Your task to perform on an android device: Open settings on Google Maps Image 0: 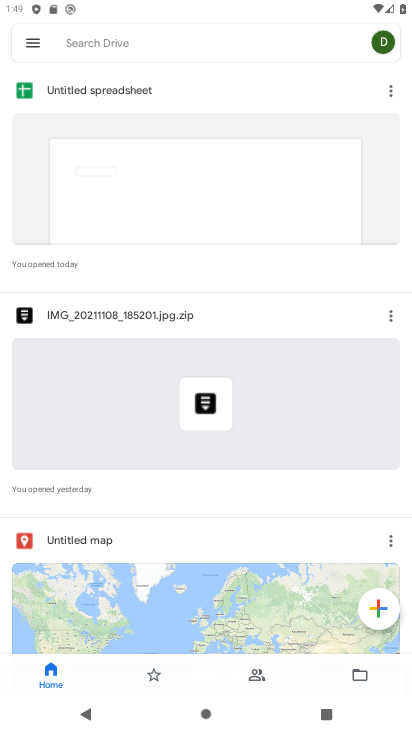
Step 0: press home button
Your task to perform on an android device: Open settings on Google Maps Image 1: 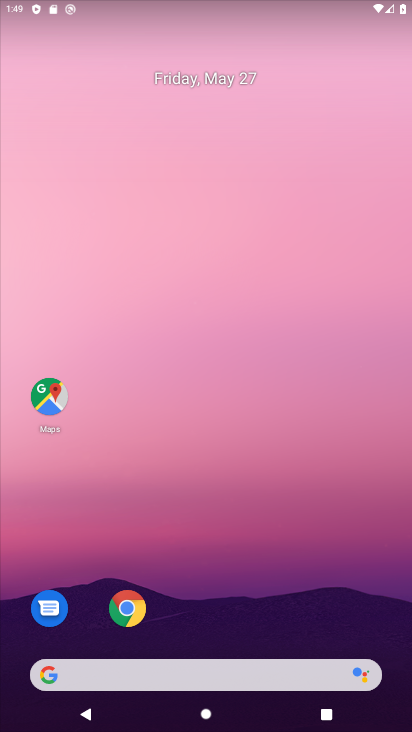
Step 1: drag from (161, 663) to (298, 170)
Your task to perform on an android device: Open settings on Google Maps Image 2: 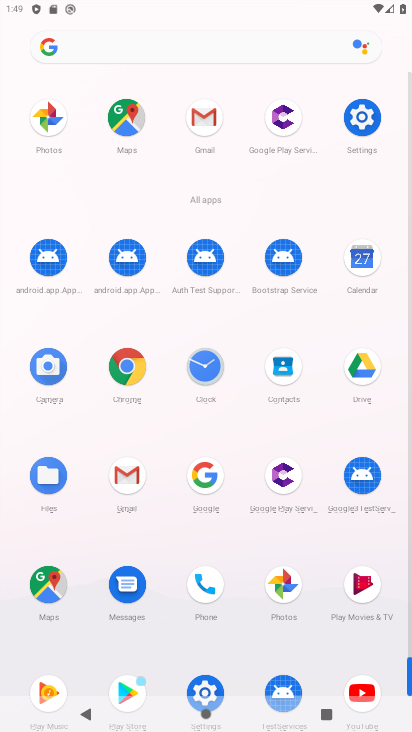
Step 2: click (48, 576)
Your task to perform on an android device: Open settings on Google Maps Image 3: 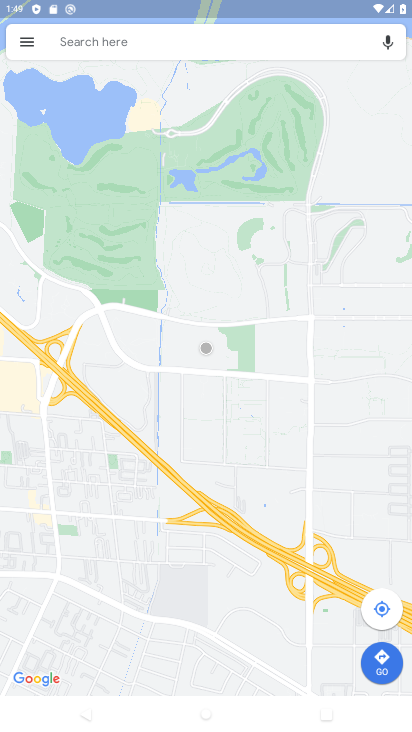
Step 3: click (34, 25)
Your task to perform on an android device: Open settings on Google Maps Image 4: 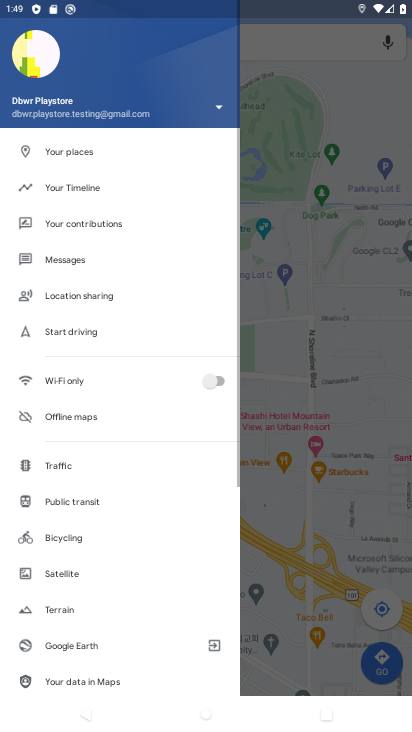
Step 4: drag from (159, 304) to (177, 247)
Your task to perform on an android device: Open settings on Google Maps Image 5: 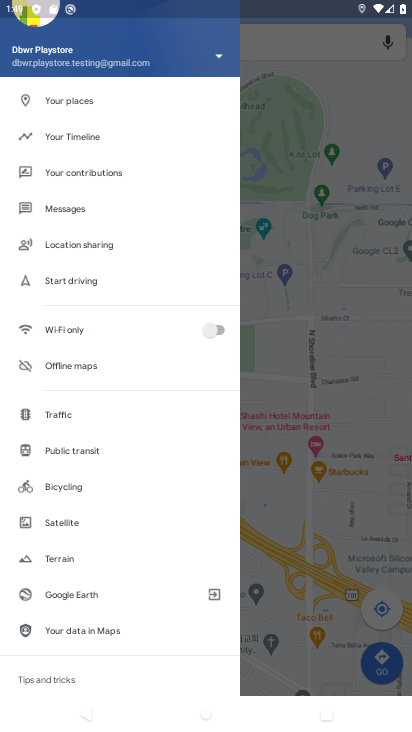
Step 5: drag from (93, 645) to (185, 296)
Your task to perform on an android device: Open settings on Google Maps Image 6: 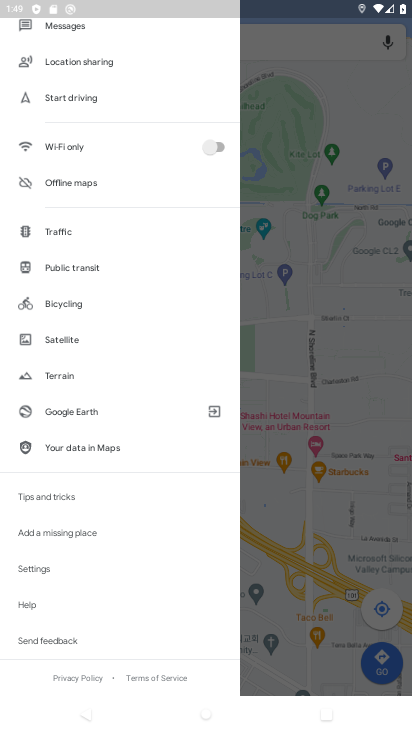
Step 6: click (76, 566)
Your task to perform on an android device: Open settings on Google Maps Image 7: 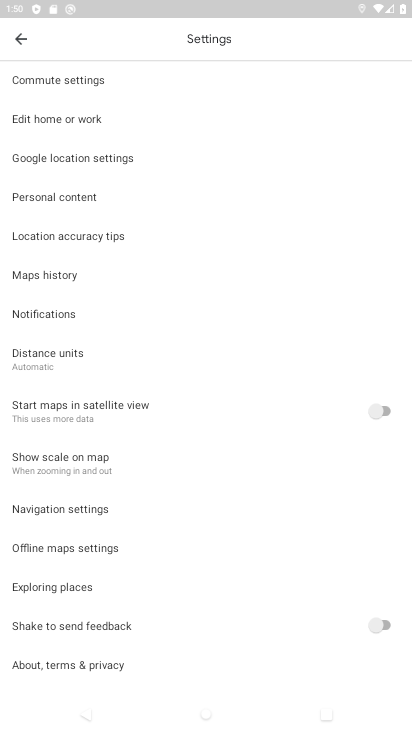
Step 7: task complete